Your task to perform on an android device: Search for the best rated mattress topper on Target. Image 0: 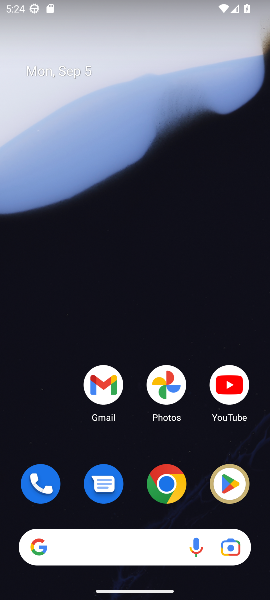
Step 0: click (266, 380)
Your task to perform on an android device: Search for the best rated mattress topper on Target. Image 1: 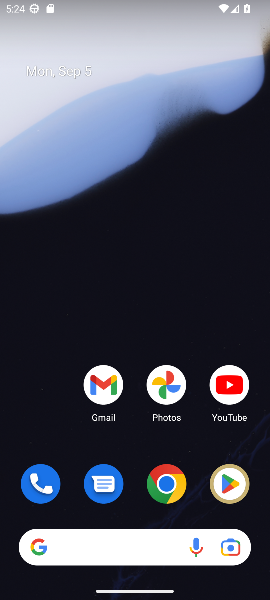
Step 1: click (162, 488)
Your task to perform on an android device: Search for the best rated mattress topper on Target. Image 2: 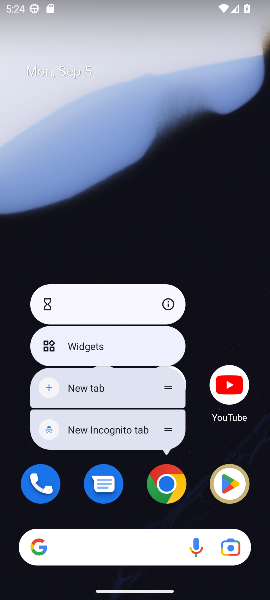
Step 2: click (162, 488)
Your task to perform on an android device: Search for the best rated mattress topper on Target. Image 3: 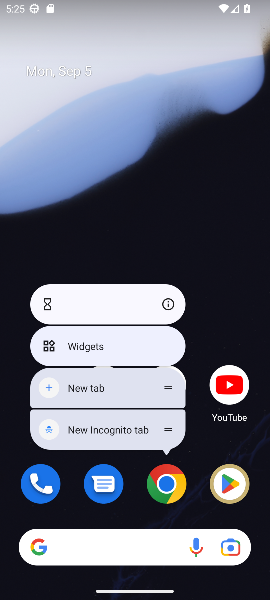
Step 3: click (170, 485)
Your task to perform on an android device: Search for the best rated mattress topper on Target. Image 4: 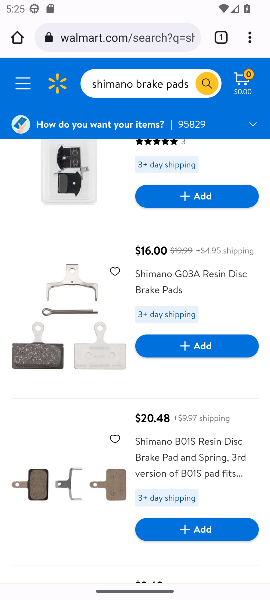
Step 4: click (144, 34)
Your task to perform on an android device: Search for the best rated mattress topper on Target. Image 5: 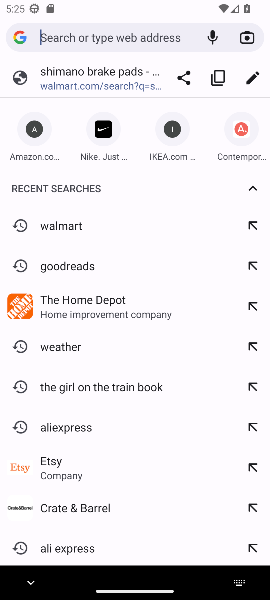
Step 5: type " Target"
Your task to perform on an android device: Search for the best rated mattress topper on Target. Image 6: 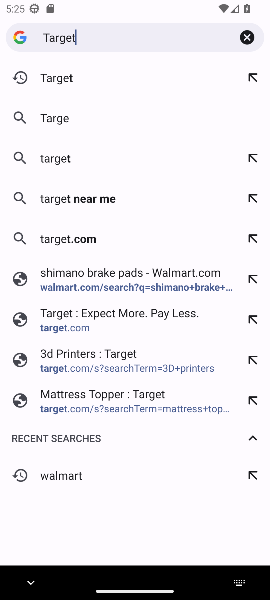
Step 6: press enter
Your task to perform on an android device: Search for the best rated mattress topper on Target. Image 7: 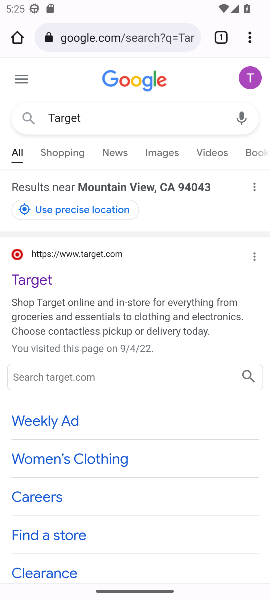
Step 7: click (35, 277)
Your task to perform on an android device: Search for the best rated mattress topper on Target. Image 8: 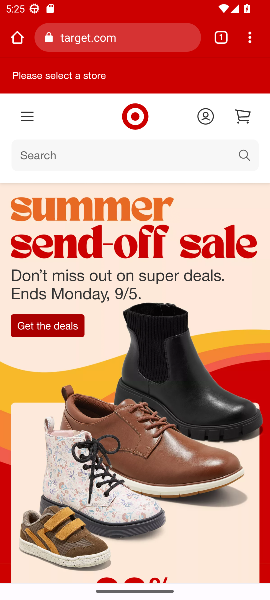
Step 8: click (136, 146)
Your task to perform on an android device: Search for the best rated mattress topper on Target. Image 9: 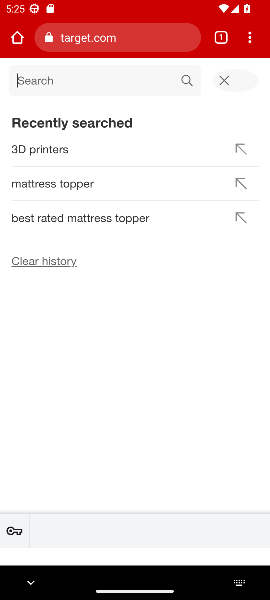
Step 9: type " mattress topper"
Your task to perform on an android device: Search for the best rated mattress topper on Target. Image 10: 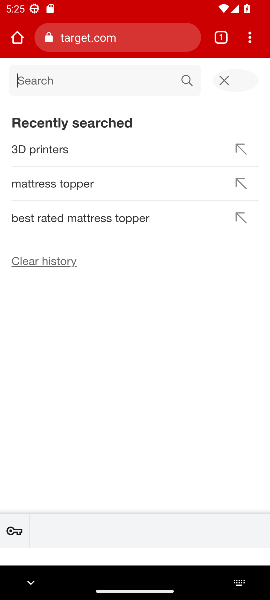
Step 10: press enter
Your task to perform on an android device: Search for the best rated mattress topper on Target. Image 11: 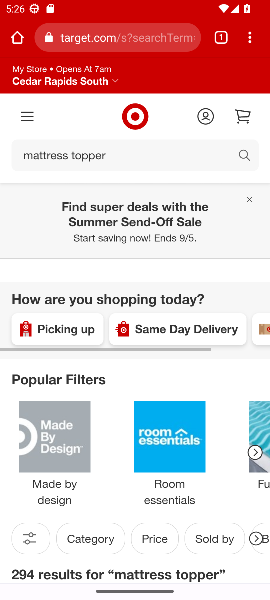
Step 11: task complete